Your task to perform on an android device: Open the web browser Image 0: 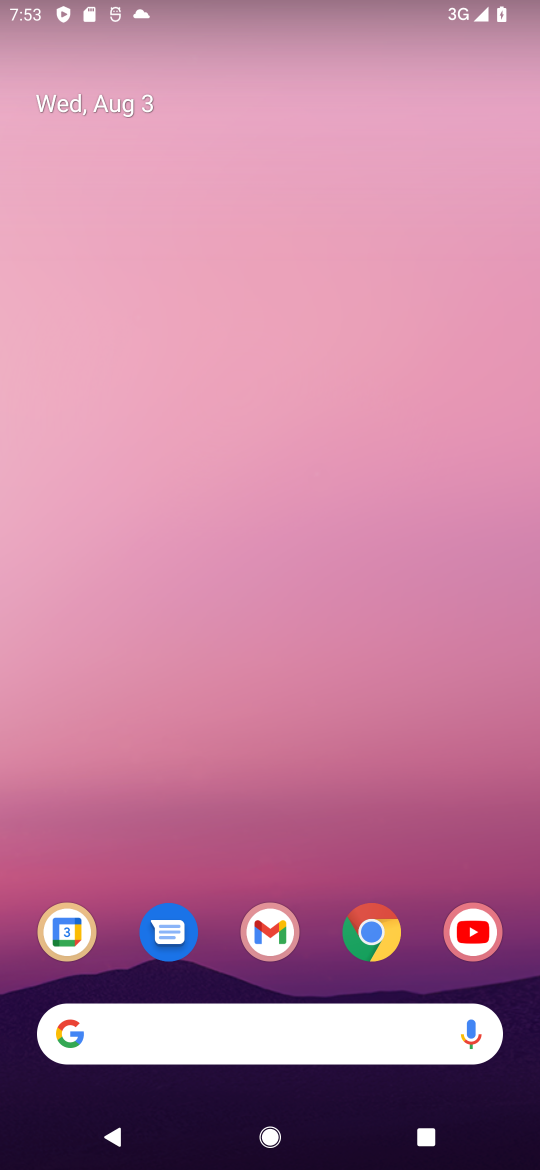
Step 0: click (388, 917)
Your task to perform on an android device: Open the web browser Image 1: 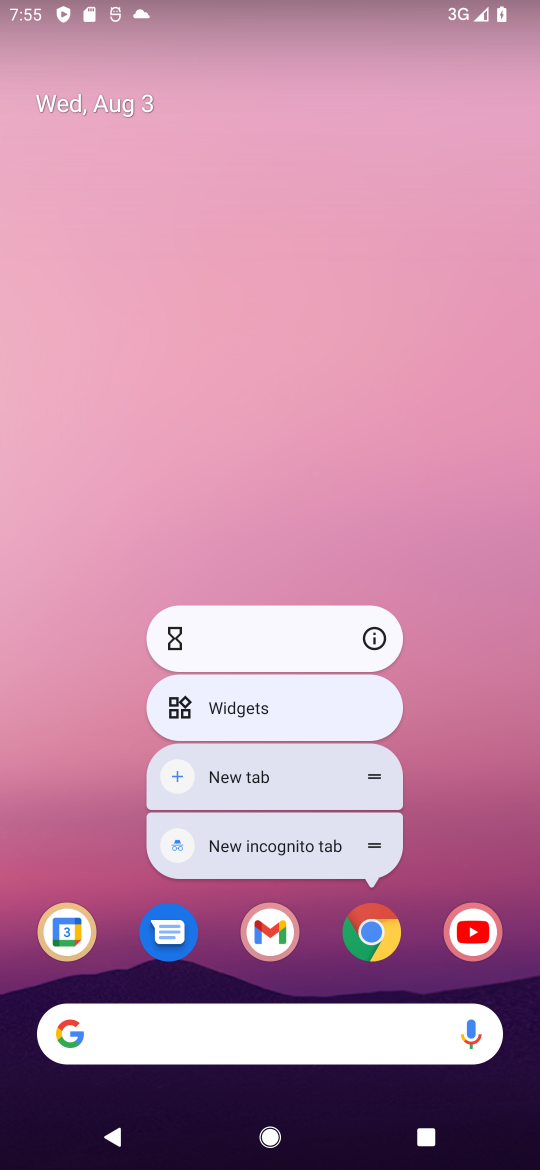
Step 1: click (352, 967)
Your task to perform on an android device: Open the web browser Image 2: 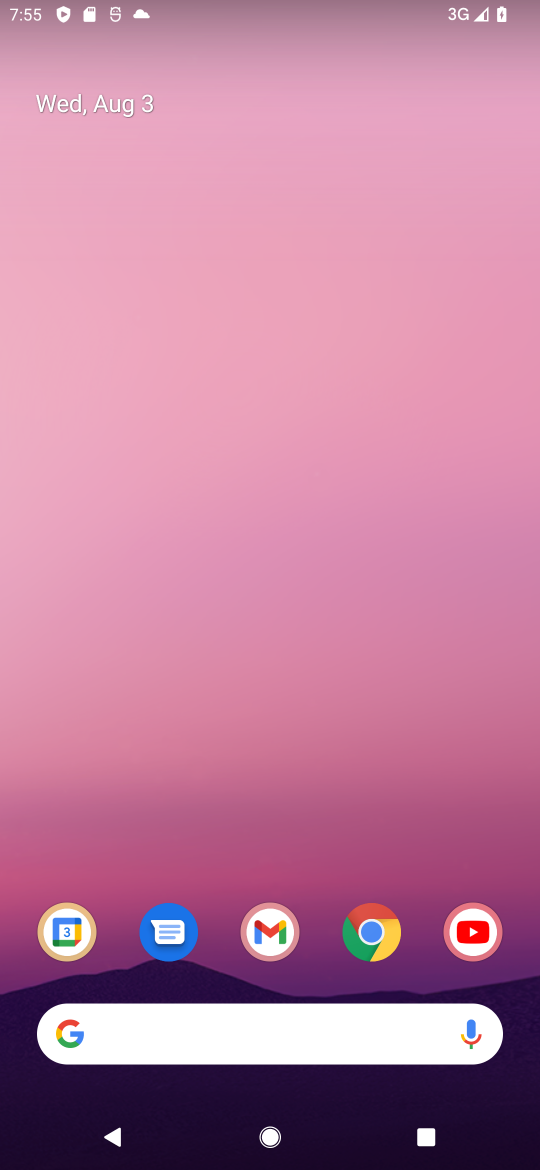
Step 2: click (363, 954)
Your task to perform on an android device: Open the web browser Image 3: 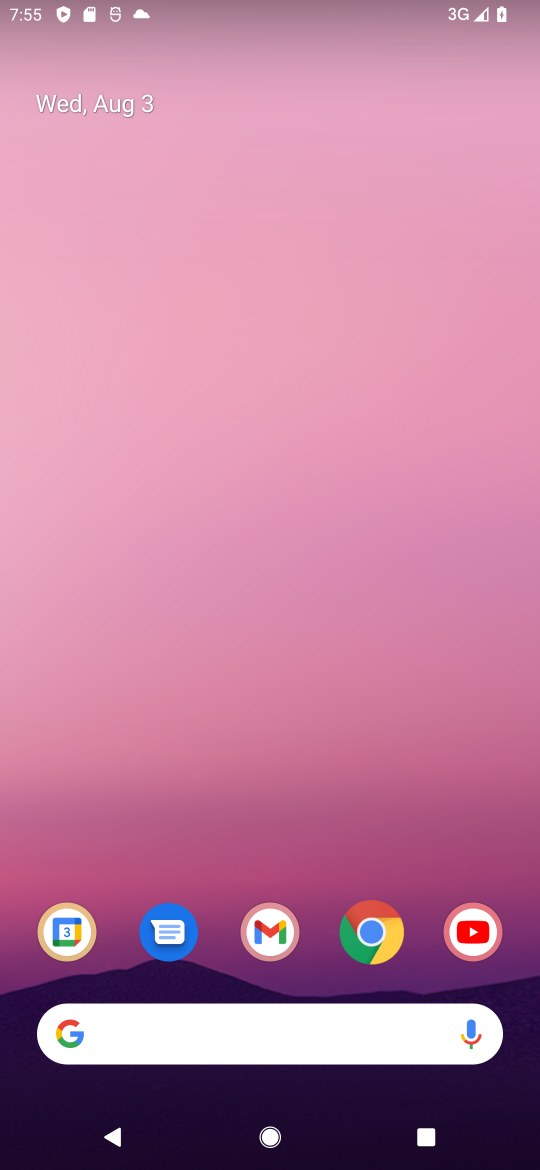
Step 3: click (363, 954)
Your task to perform on an android device: Open the web browser Image 4: 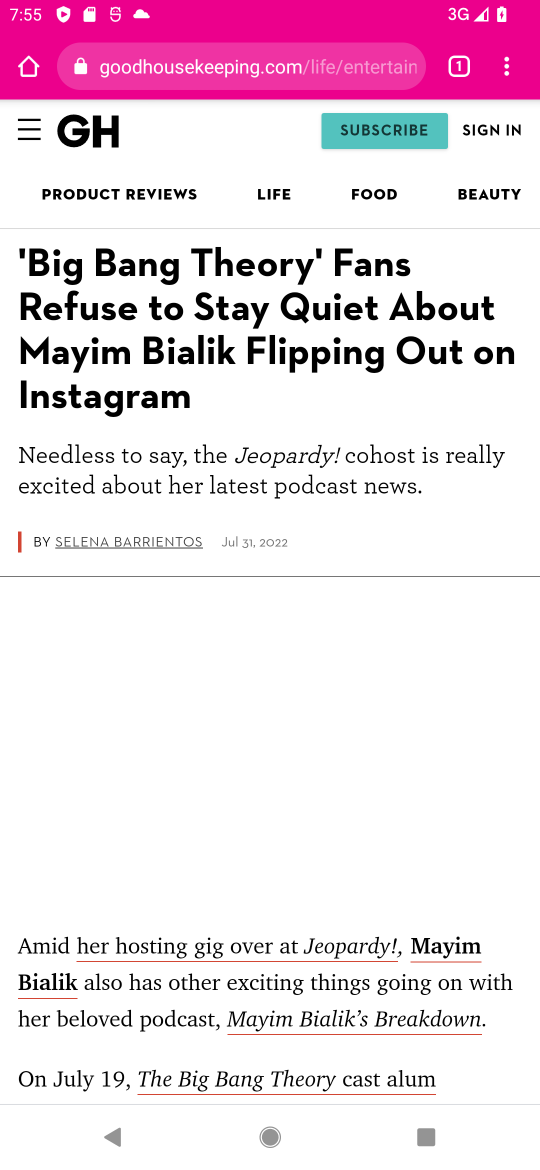
Step 4: task complete